Your task to perform on an android device: Go to privacy settings Image 0: 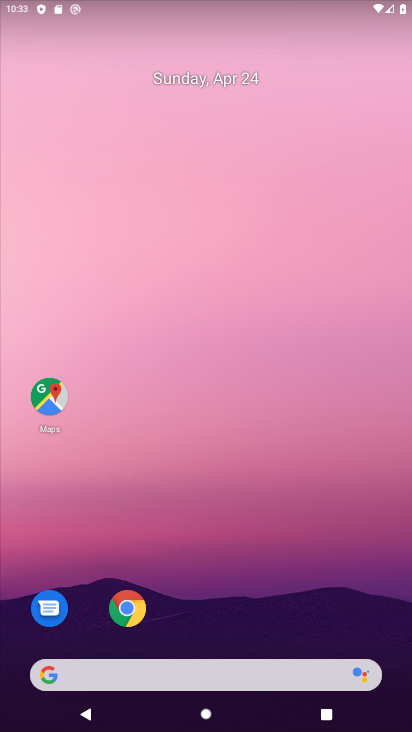
Step 0: drag from (372, 570) to (339, 54)
Your task to perform on an android device: Go to privacy settings Image 1: 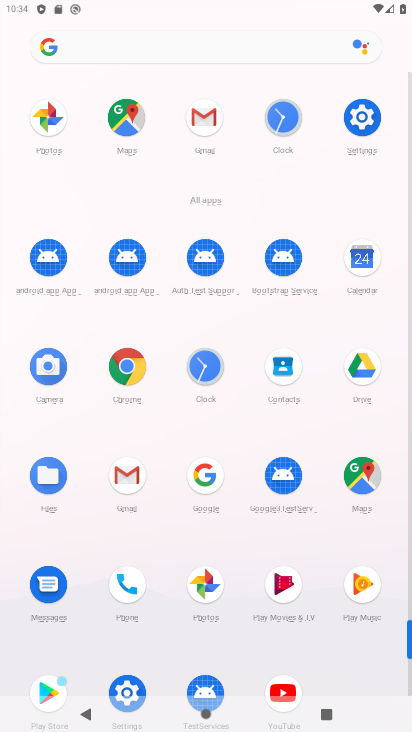
Step 1: click (407, 680)
Your task to perform on an android device: Go to privacy settings Image 2: 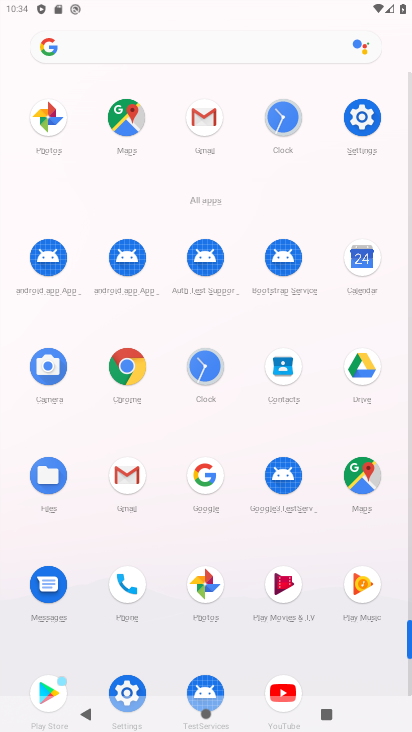
Step 2: click (410, 669)
Your task to perform on an android device: Go to privacy settings Image 3: 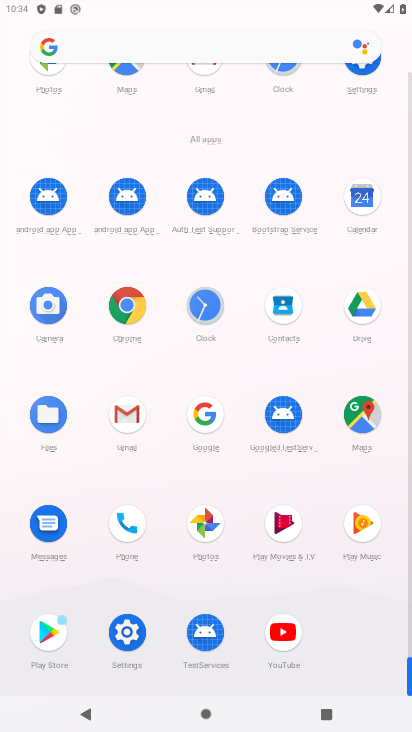
Step 3: click (123, 630)
Your task to perform on an android device: Go to privacy settings Image 4: 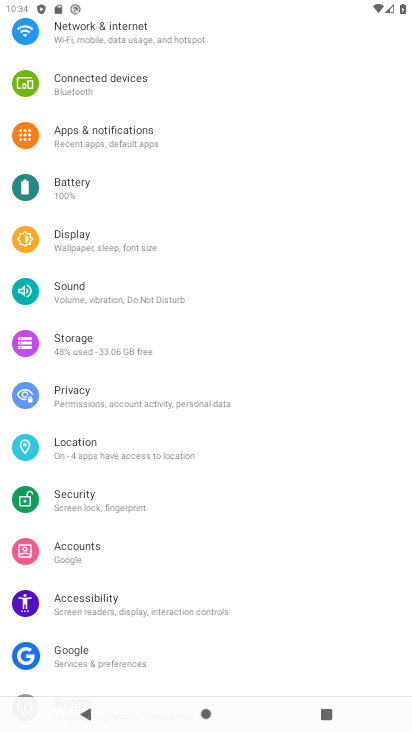
Step 4: click (72, 394)
Your task to perform on an android device: Go to privacy settings Image 5: 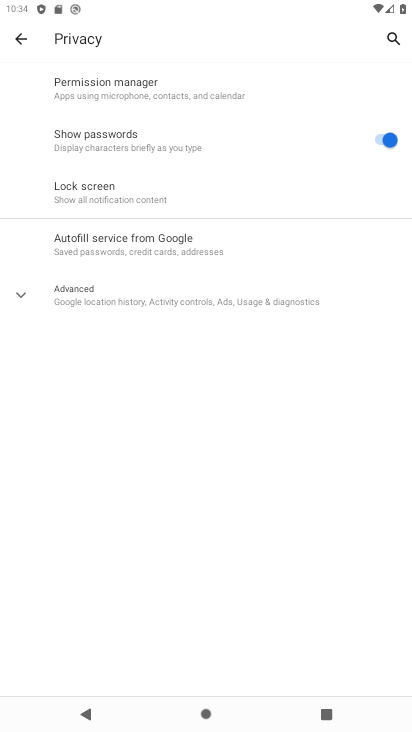
Step 5: click (19, 281)
Your task to perform on an android device: Go to privacy settings Image 6: 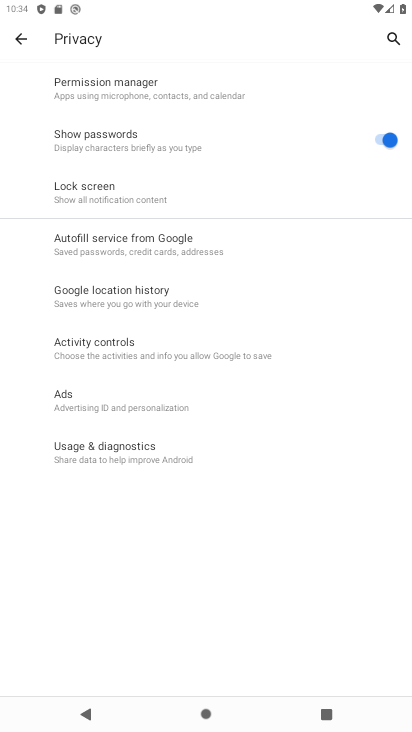
Step 6: task complete